Your task to perform on an android device: turn off notifications in google photos Image 0: 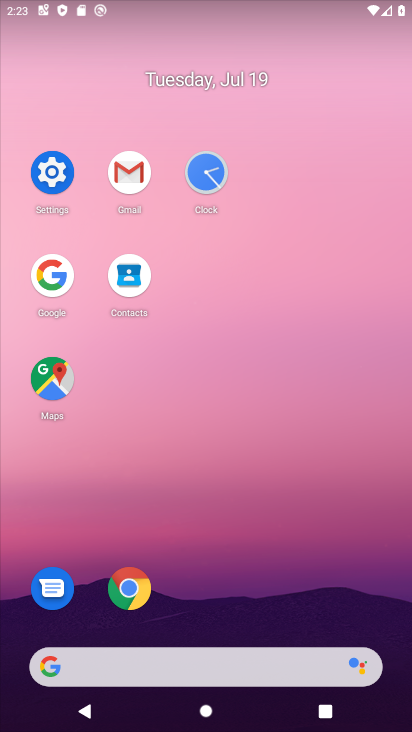
Step 0: drag from (315, 573) to (324, 82)
Your task to perform on an android device: turn off notifications in google photos Image 1: 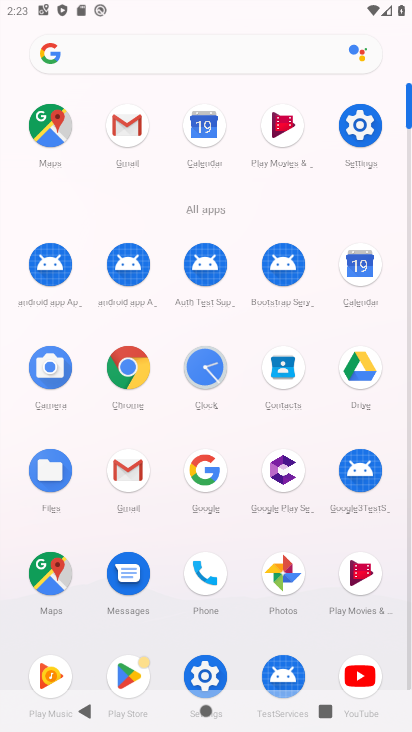
Step 1: drag from (281, 576) to (200, 273)
Your task to perform on an android device: turn off notifications in google photos Image 2: 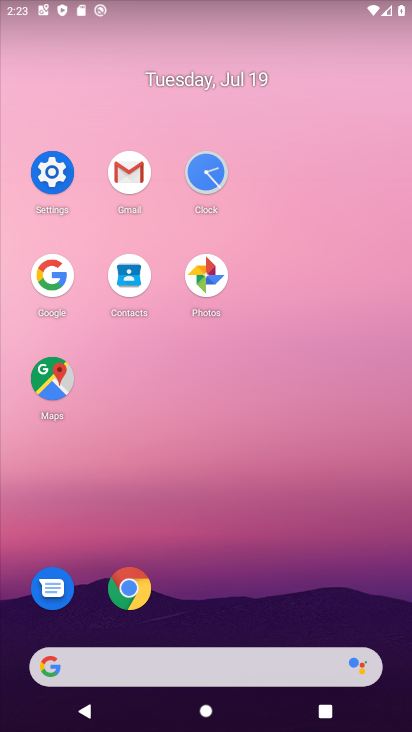
Step 2: click (201, 287)
Your task to perform on an android device: turn off notifications in google photos Image 3: 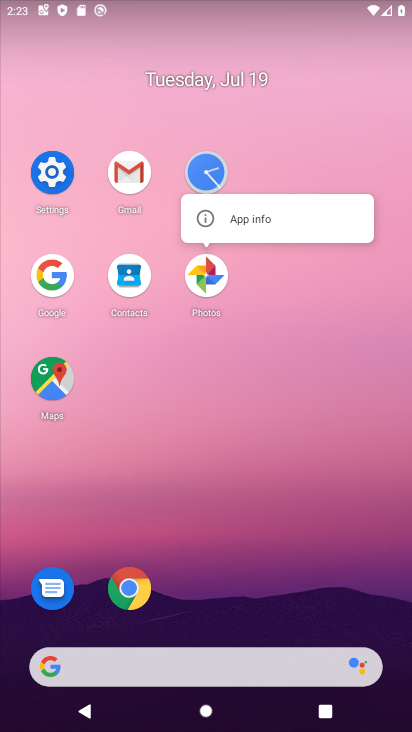
Step 3: click (201, 287)
Your task to perform on an android device: turn off notifications in google photos Image 4: 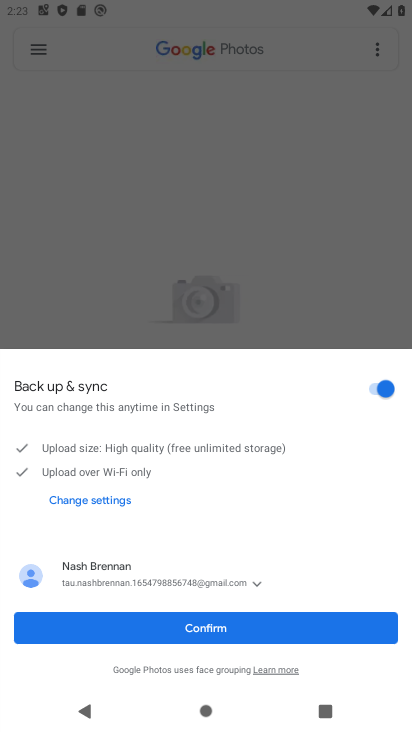
Step 4: click (193, 636)
Your task to perform on an android device: turn off notifications in google photos Image 5: 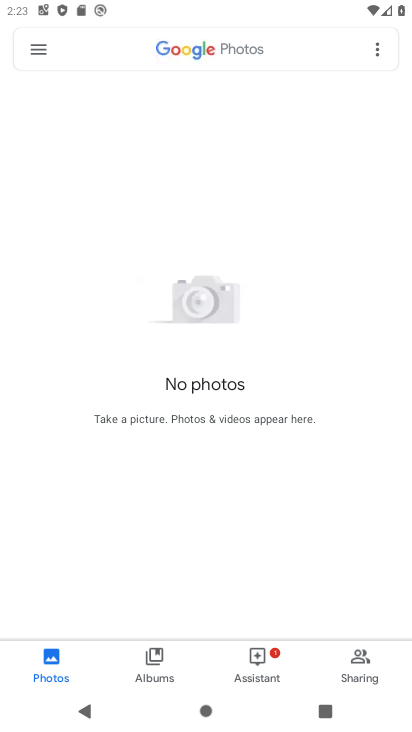
Step 5: click (37, 61)
Your task to perform on an android device: turn off notifications in google photos Image 6: 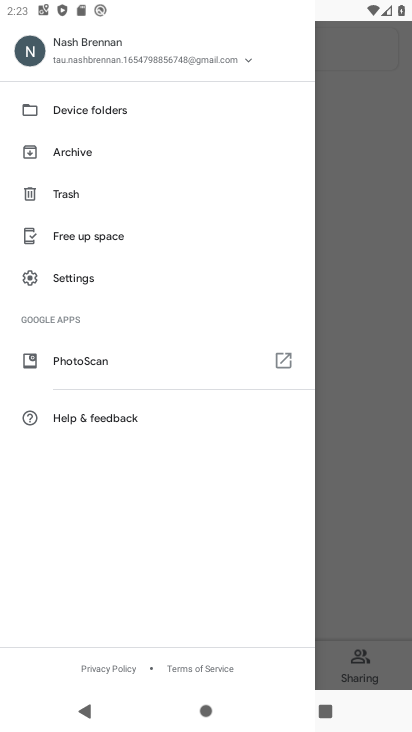
Step 6: click (87, 302)
Your task to perform on an android device: turn off notifications in google photos Image 7: 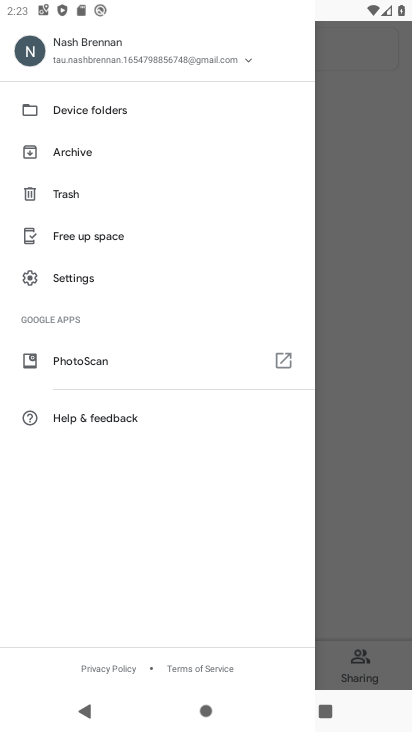
Step 7: click (87, 289)
Your task to perform on an android device: turn off notifications in google photos Image 8: 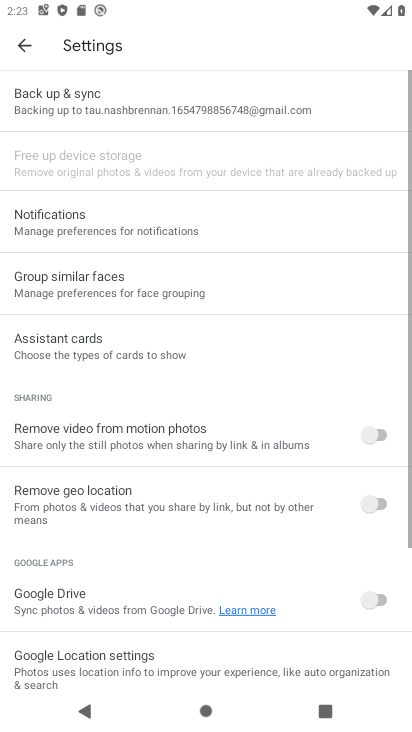
Step 8: click (102, 214)
Your task to perform on an android device: turn off notifications in google photos Image 9: 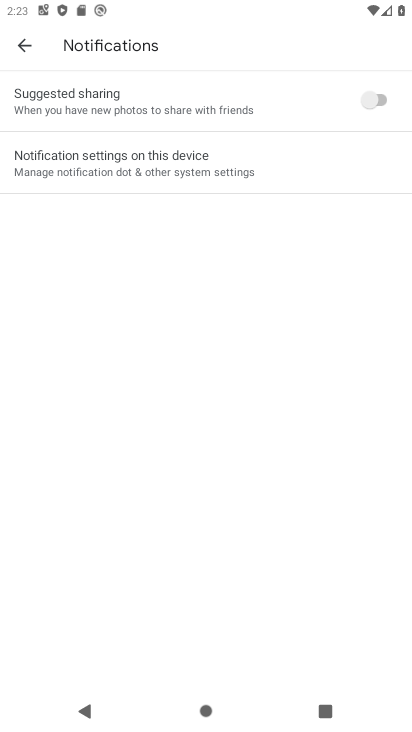
Step 9: task complete